Your task to perform on an android device: turn off smart reply in the gmail app Image 0: 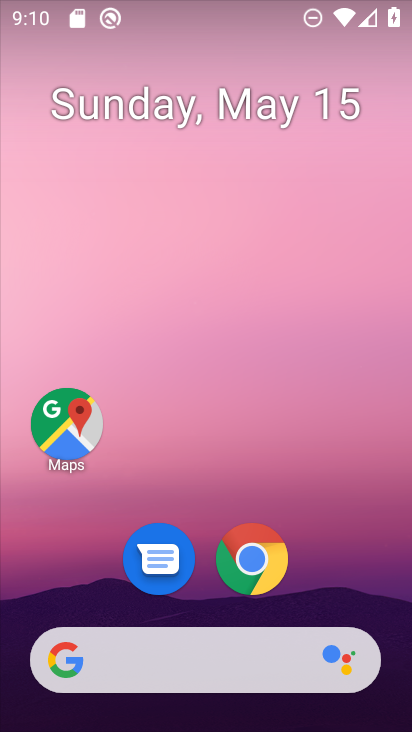
Step 0: drag from (335, 558) to (316, 67)
Your task to perform on an android device: turn off smart reply in the gmail app Image 1: 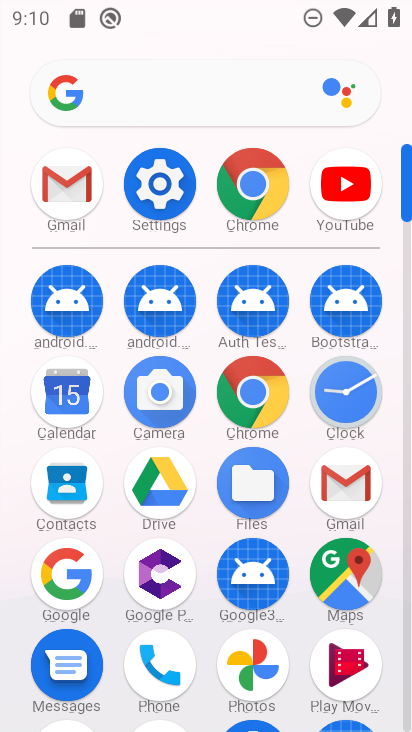
Step 1: click (88, 175)
Your task to perform on an android device: turn off smart reply in the gmail app Image 2: 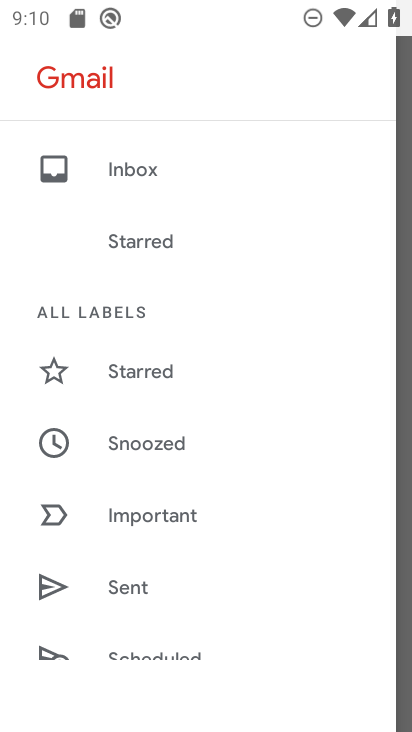
Step 2: drag from (194, 510) to (238, 278)
Your task to perform on an android device: turn off smart reply in the gmail app Image 3: 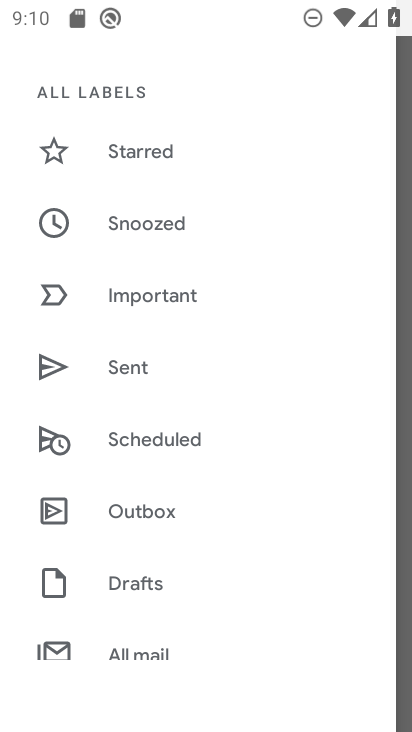
Step 3: drag from (202, 607) to (251, 344)
Your task to perform on an android device: turn off smart reply in the gmail app Image 4: 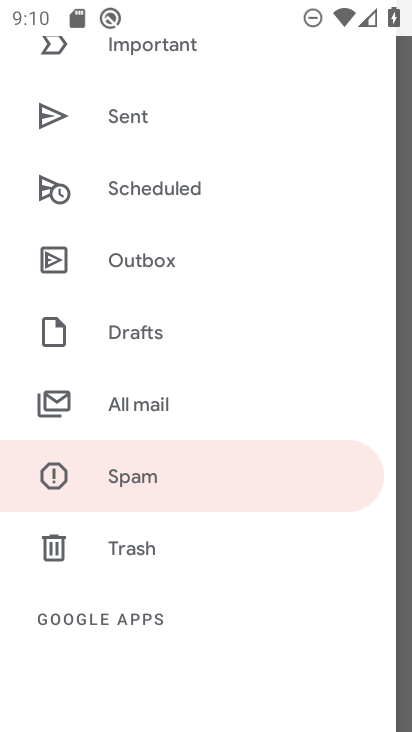
Step 4: drag from (178, 596) to (206, 392)
Your task to perform on an android device: turn off smart reply in the gmail app Image 5: 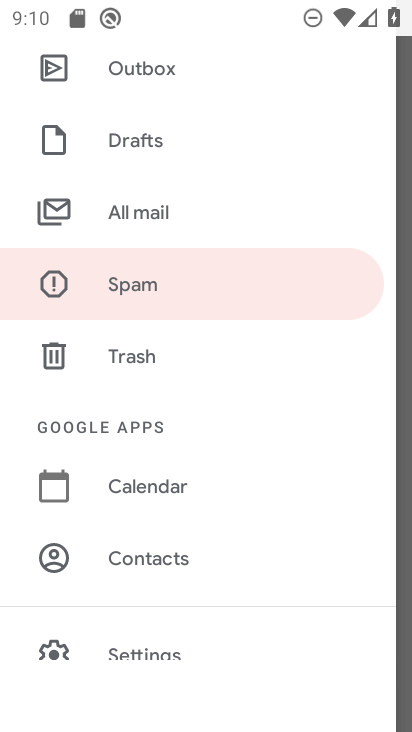
Step 5: click (146, 642)
Your task to perform on an android device: turn off smart reply in the gmail app Image 6: 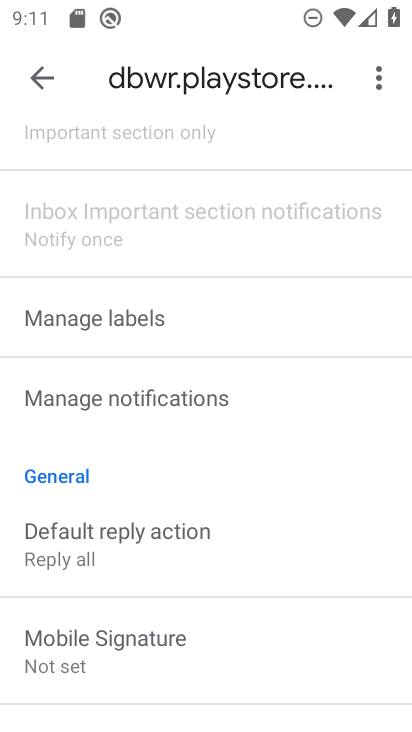
Step 6: drag from (194, 648) to (249, 238)
Your task to perform on an android device: turn off smart reply in the gmail app Image 7: 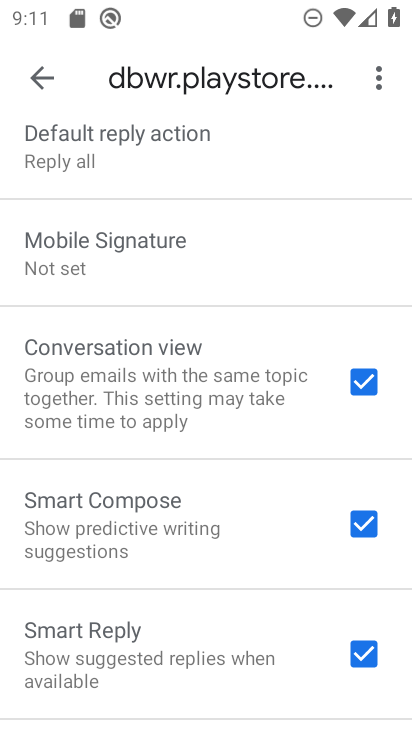
Step 7: click (366, 677)
Your task to perform on an android device: turn off smart reply in the gmail app Image 8: 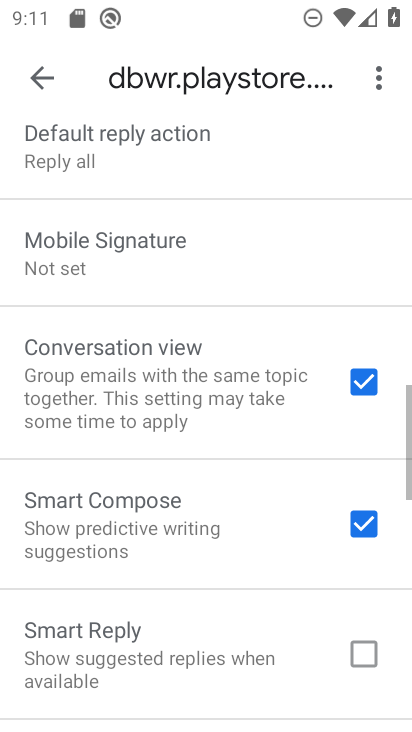
Step 8: task complete